Your task to perform on an android device: toggle airplane mode Image 0: 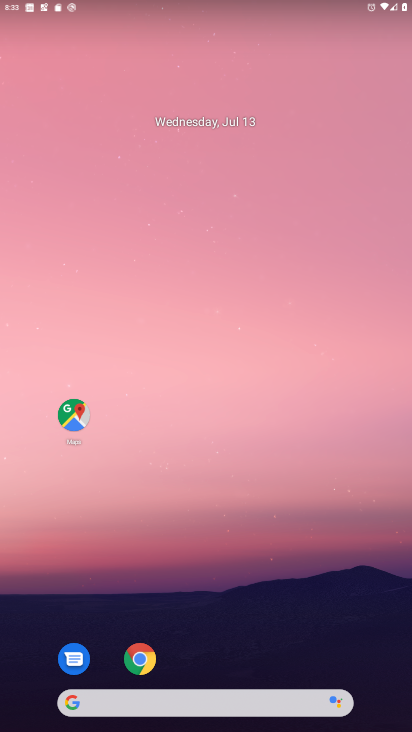
Step 0: drag from (226, 567) to (208, 91)
Your task to perform on an android device: toggle airplane mode Image 1: 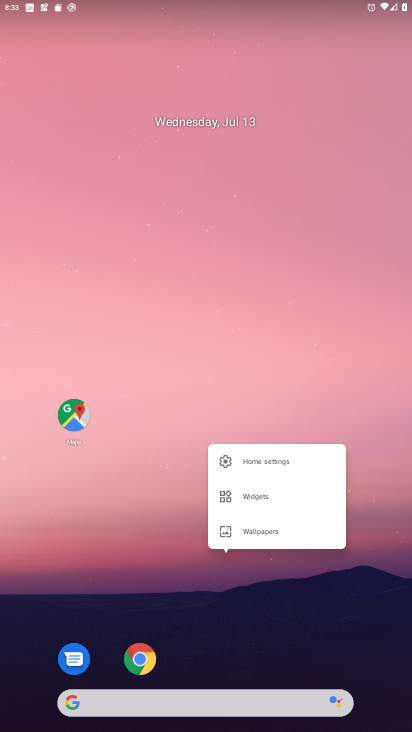
Step 1: click (223, 306)
Your task to perform on an android device: toggle airplane mode Image 2: 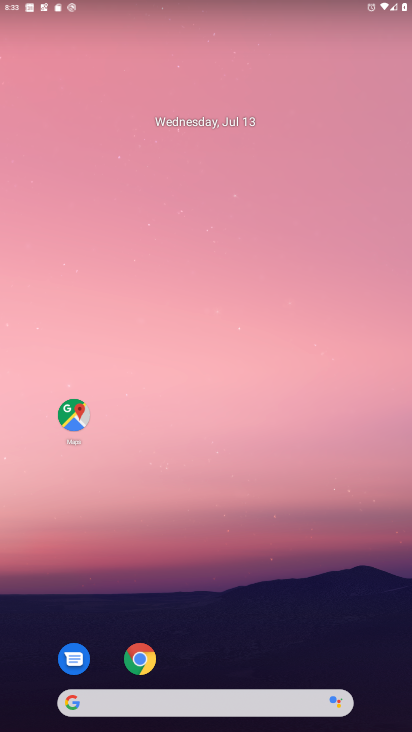
Step 2: drag from (241, 631) to (297, 28)
Your task to perform on an android device: toggle airplane mode Image 3: 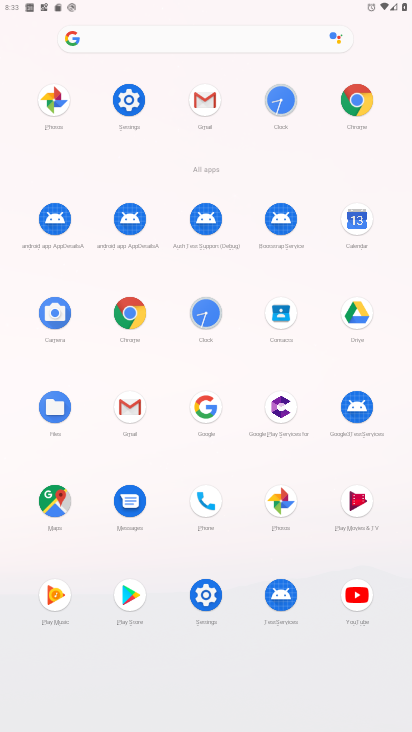
Step 3: click (128, 102)
Your task to perform on an android device: toggle airplane mode Image 4: 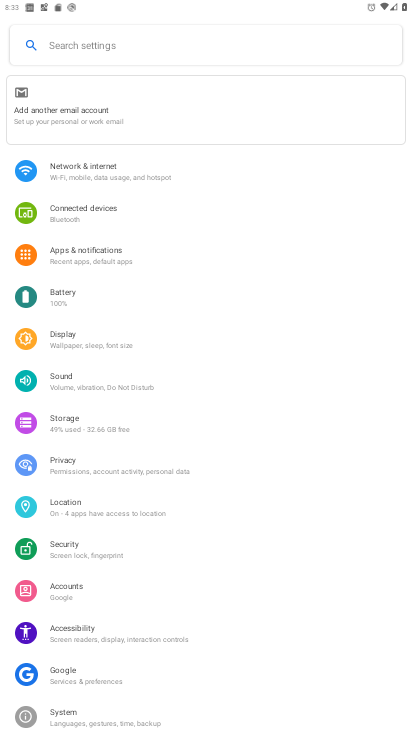
Step 4: click (93, 164)
Your task to perform on an android device: toggle airplane mode Image 5: 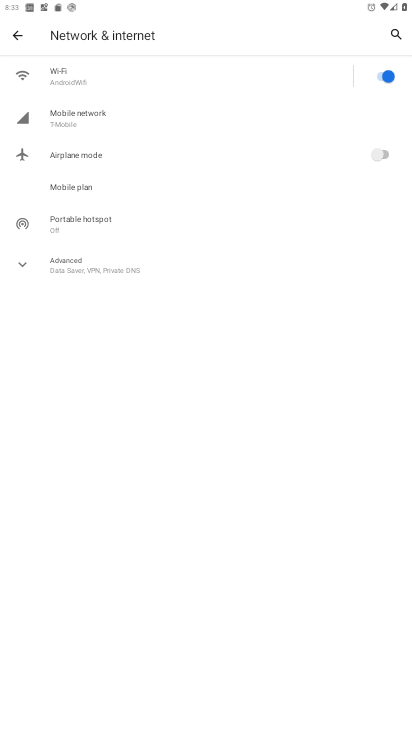
Step 5: click (379, 155)
Your task to perform on an android device: toggle airplane mode Image 6: 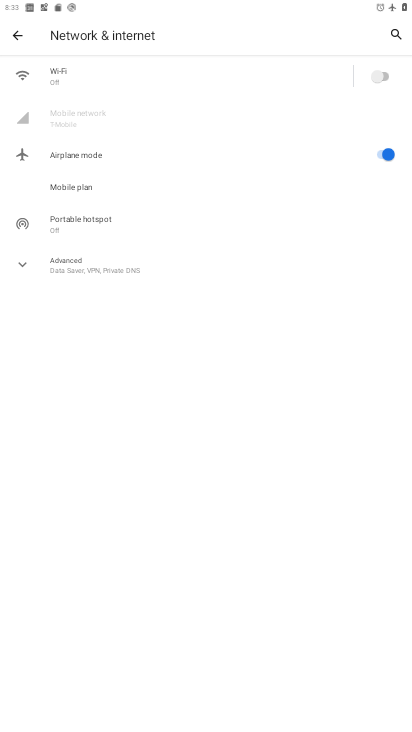
Step 6: task complete